Your task to perform on an android device: change notification settings in the gmail app Image 0: 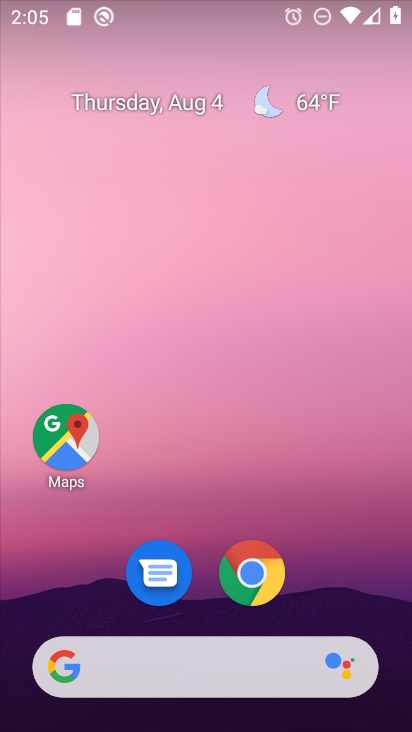
Step 0: drag from (331, 539) to (359, 147)
Your task to perform on an android device: change notification settings in the gmail app Image 1: 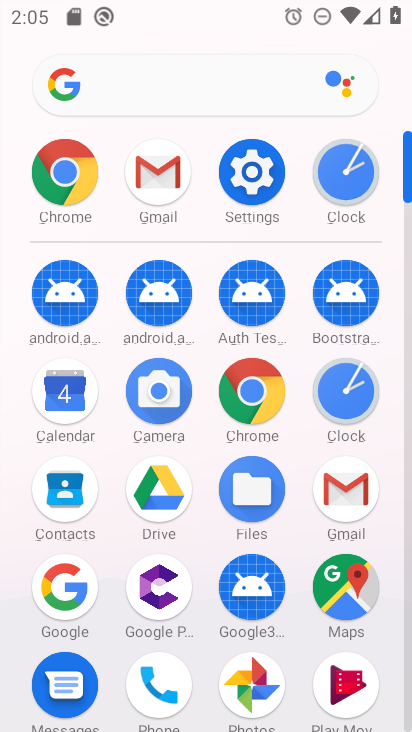
Step 1: click (356, 483)
Your task to perform on an android device: change notification settings in the gmail app Image 2: 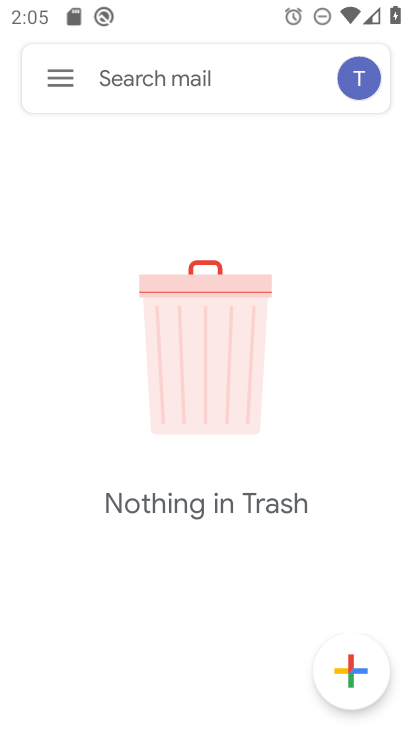
Step 2: click (42, 68)
Your task to perform on an android device: change notification settings in the gmail app Image 3: 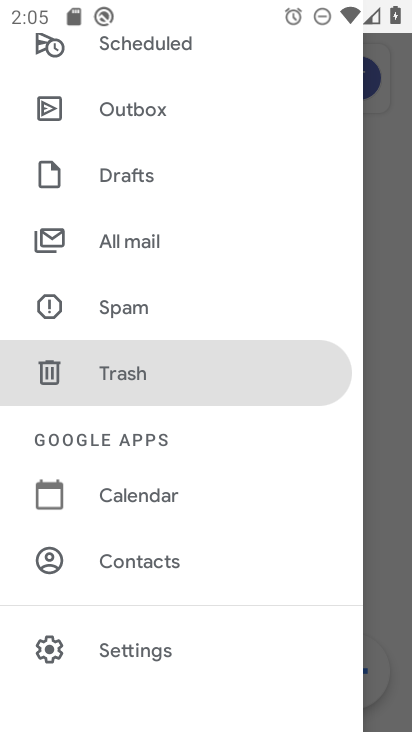
Step 3: click (130, 656)
Your task to perform on an android device: change notification settings in the gmail app Image 4: 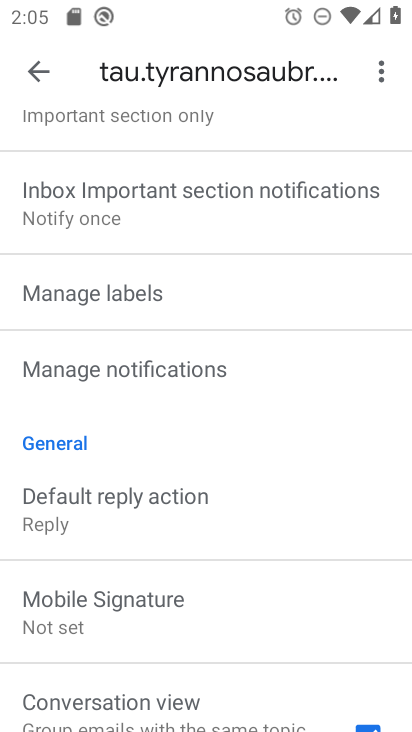
Step 4: click (180, 367)
Your task to perform on an android device: change notification settings in the gmail app Image 5: 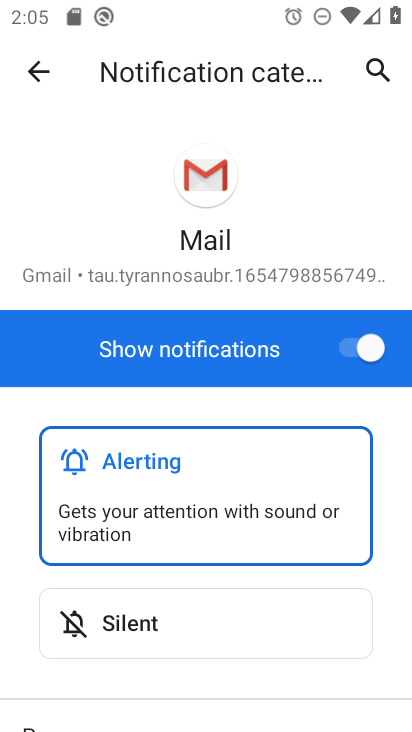
Step 5: click (371, 355)
Your task to perform on an android device: change notification settings in the gmail app Image 6: 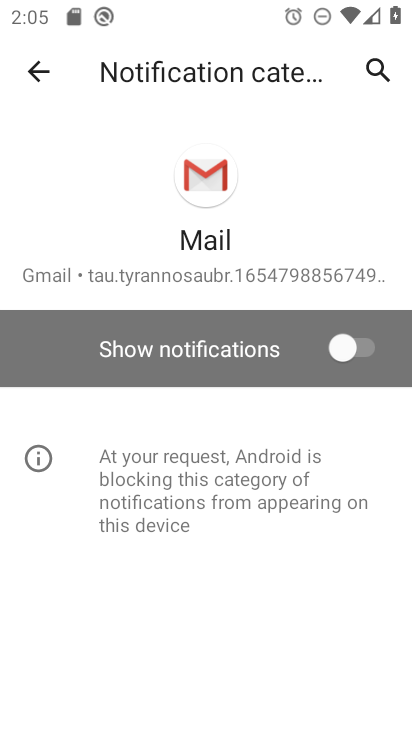
Step 6: task complete